Your task to perform on an android device: turn off data saver in the chrome app Image 0: 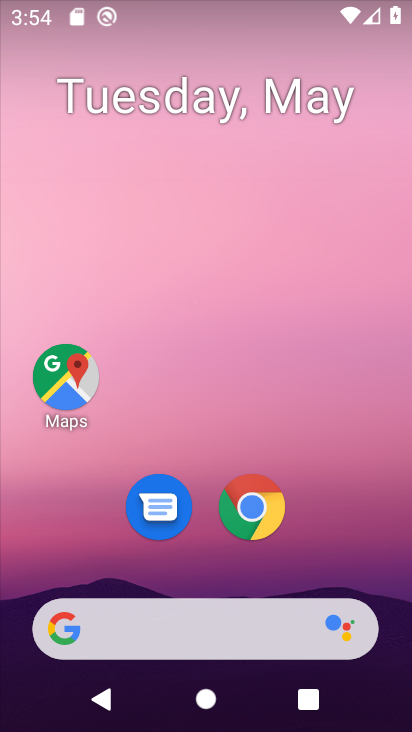
Step 0: click (247, 510)
Your task to perform on an android device: turn off data saver in the chrome app Image 1: 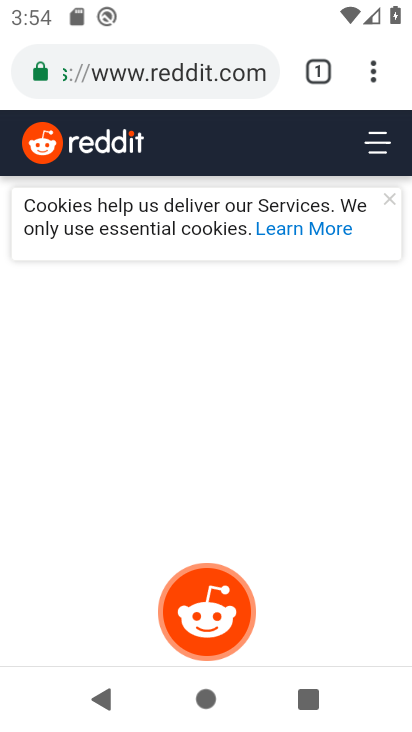
Step 1: click (371, 79)
Your task to perform on an android device: turn off data saver in the chrome app Image 2: 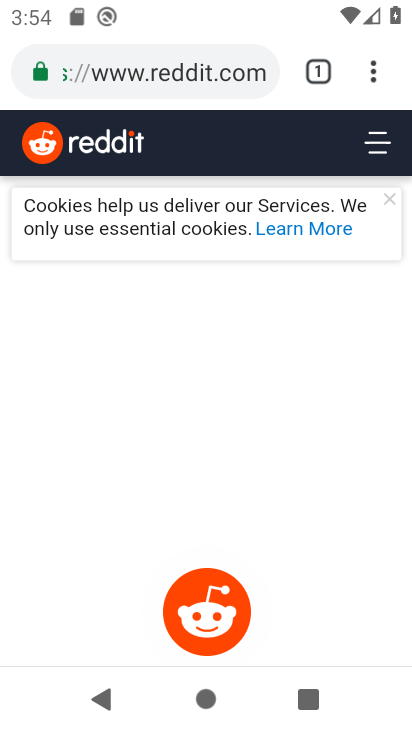
Step 2: click (371, 79)
Your task to perform on an android device: turn off data saver in the chrome app Image 3: 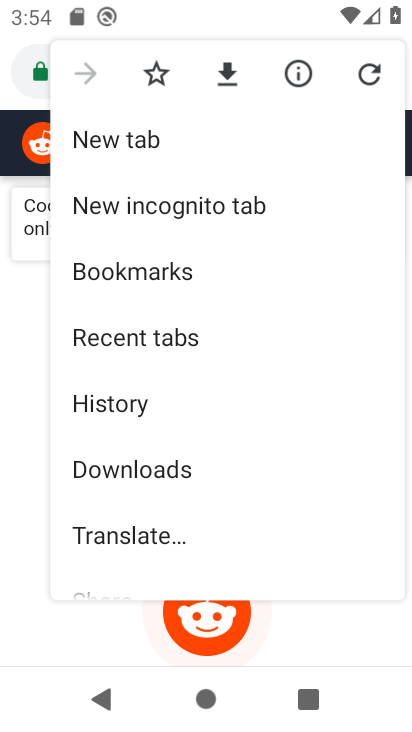
Step 3: drag from (155, 510) to (168, 295)
Your task to perform on an android device: turn off data saver in the chrome app Image 4: 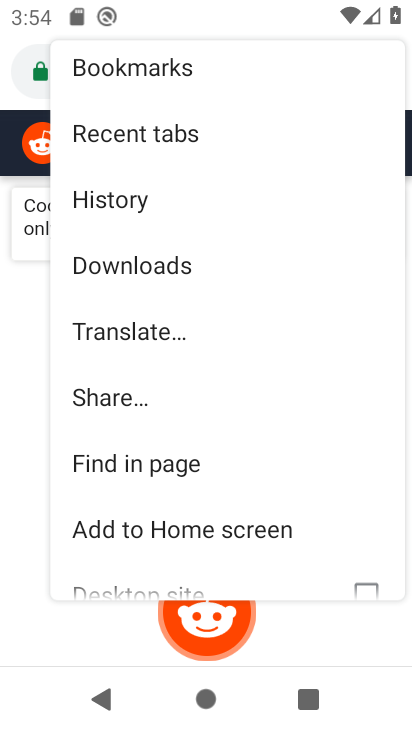
Step 4: drag from (124, 503) to (152, 330)
Your task to perform on an android device: turn off data saver in the chrome app Image 5: 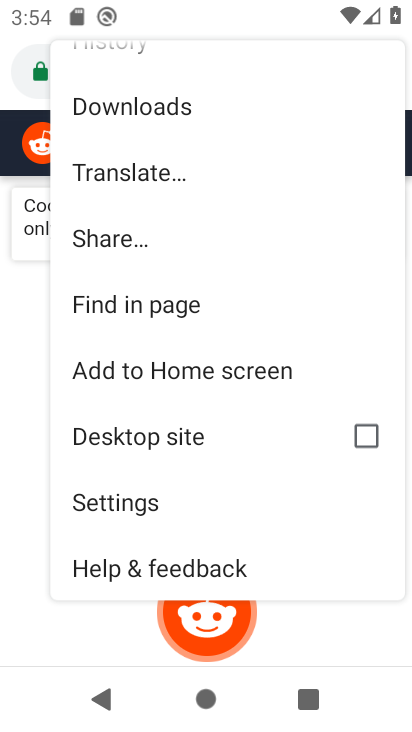
Step 5: click (145, 510)
Your task to perform on an android device: turn off data saver in the chrome app Image 6: 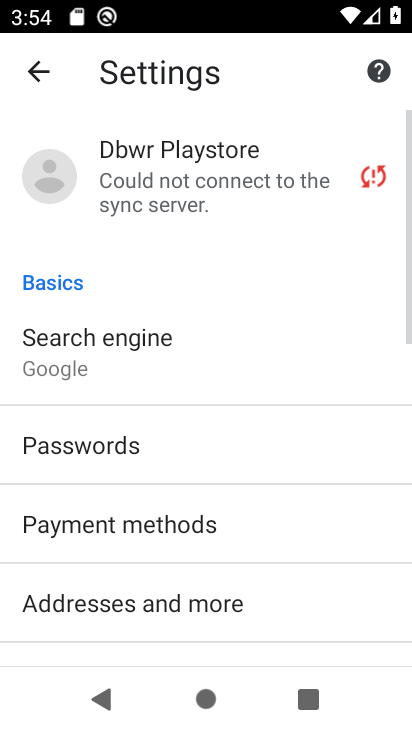
Step 6: drag from (133, 564) to (161, 413)
Your task to perform on an android device: turn off data saver in the chrome app Image 7: 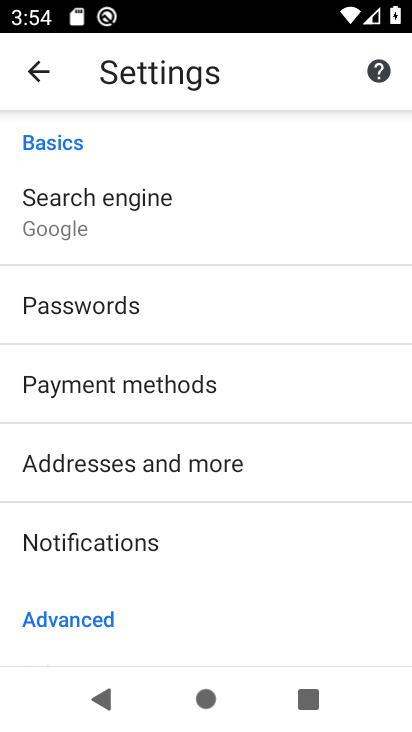
Step 7: drag from (148, 600) to (172, 395)
Your task to perform on an android device: turn off data saver in the chrome app Image 8: 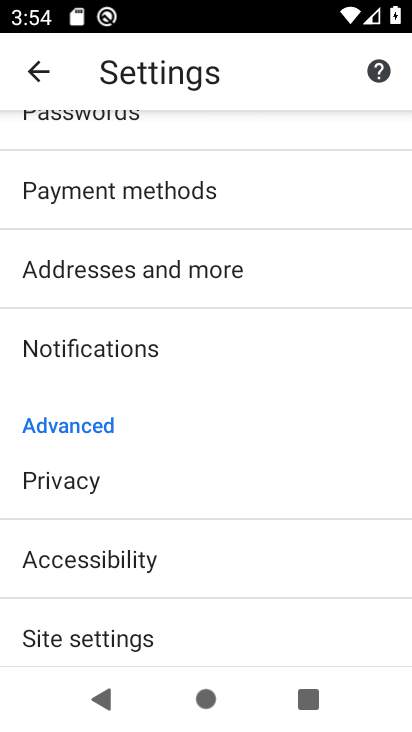
Step 8: drag from (161, 603) to (177, 434)
Your task to perform on an android device: turn off data saver in the chrome app Image 9: 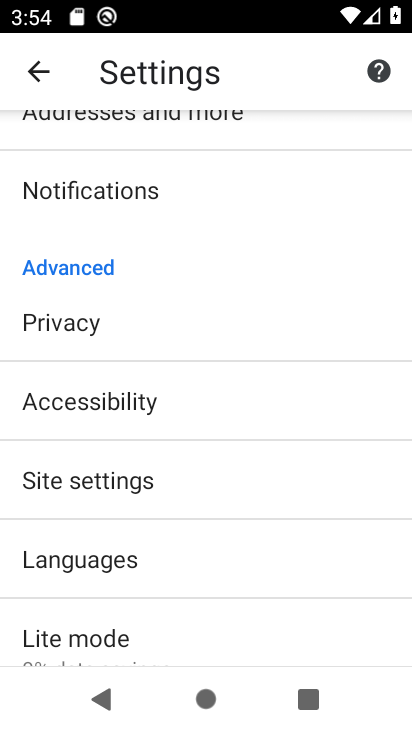
Step 9: click (144, 634)
Your task to perform on an android device: turn off data saver in the chrome app Image 10: 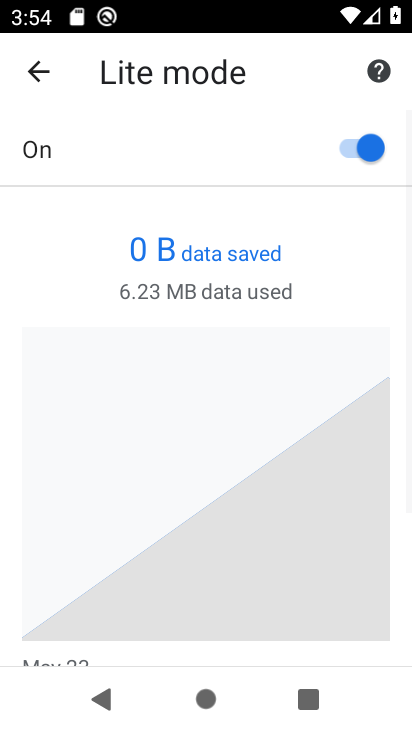
Step 10: click (344, 157)
Your task to perform on an android device: turn off data saver in the chrome app Image 11: 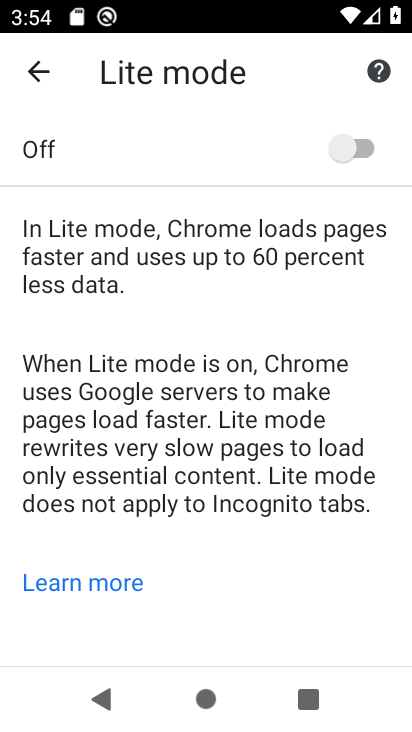
Step 11: task complete